Your task to perform on an android device: turn off translation in the chrome app Image 0: 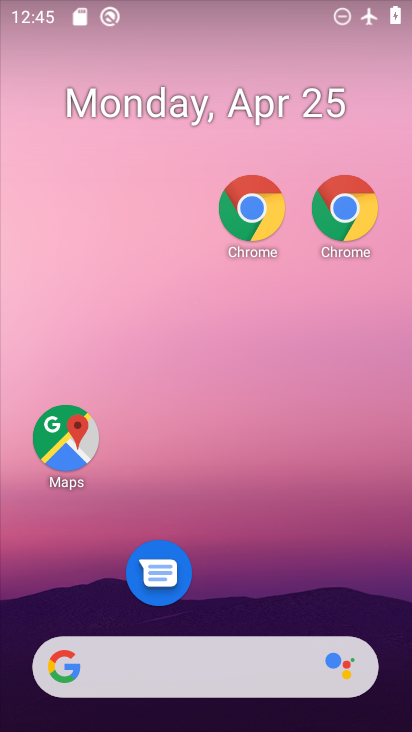
Step 0: click (199, 171)
Your task to perform on an android device: turn off translation in the chrome app Image 1: 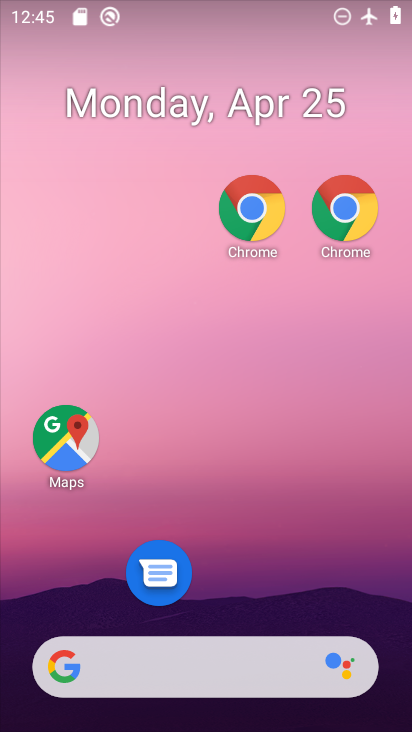
Step 1: drag from (272, 706) to (203, 218)
Your task to perform on an android device: turn off translation in the chrome app Image 2: 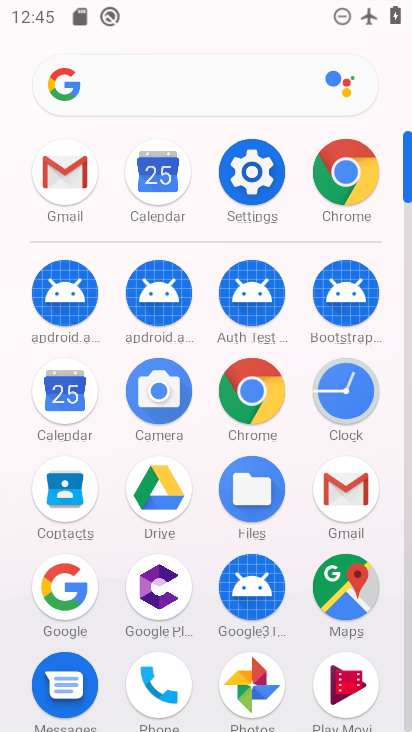
Step 2: click (339, 178)
Your task to perform on an android device: turn off translation in the chrome app Image 3: 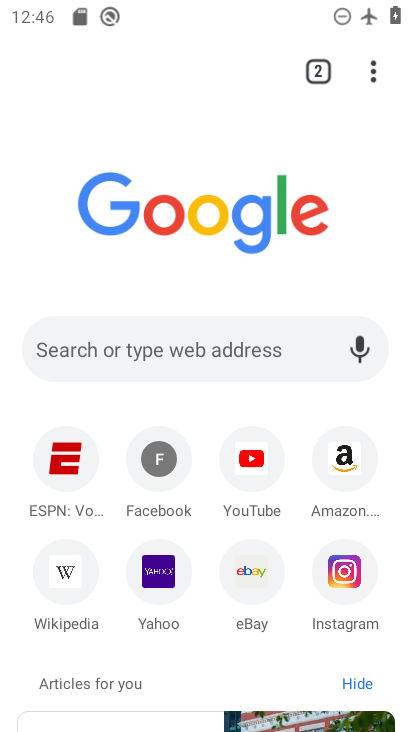
Step 3: drag from (371, 67) to (113, 592)
Your task to perform on an android device: turn off translation in the chrome app Image 4: 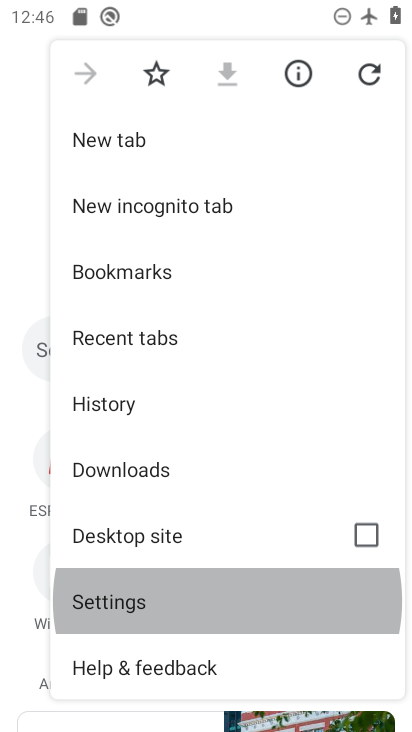
Step 4: click (103, 599)
Your task to perform on an android device: turn off translation in the chrome app Image 5: 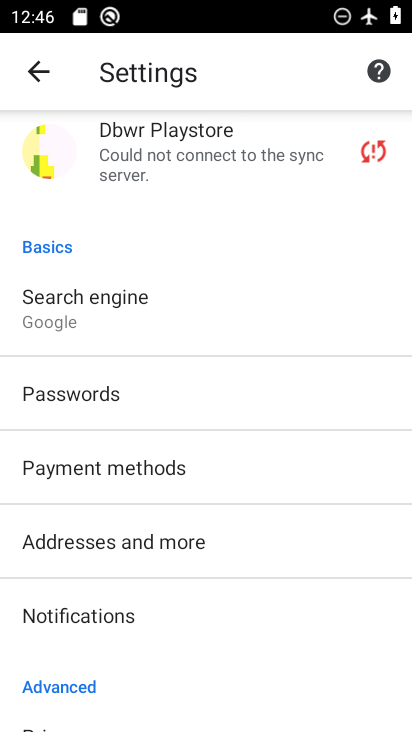
Step 5: drag from (202, 551) to (222, 160)
Your task to perform on an android device: turn off translation in the chrome app Image 6: 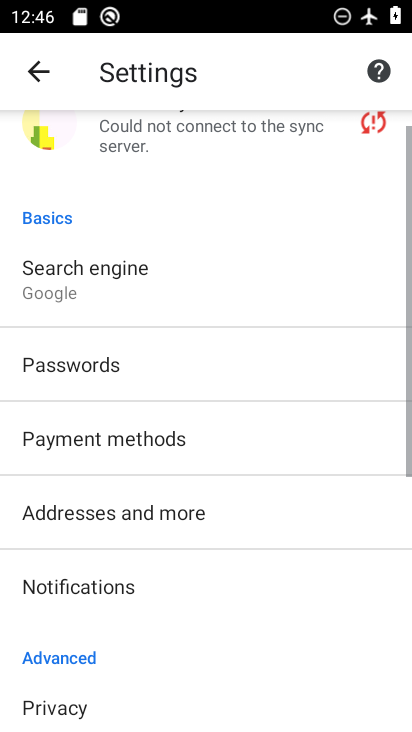
Step 6: drag from (217, 561) to (212, 157)
Your task to perform on an android device: turn off translation in the chrome app Image 7: 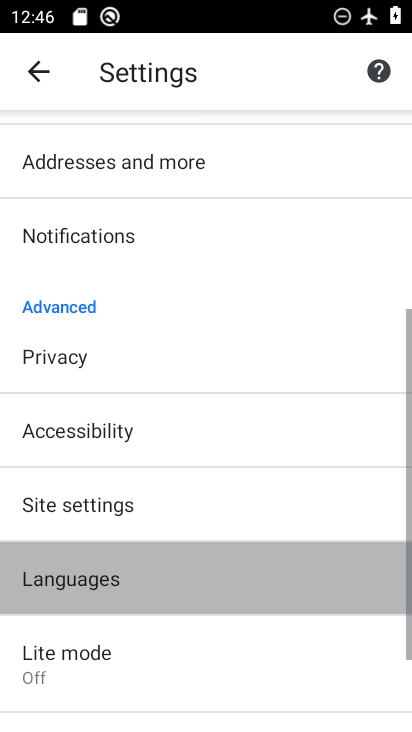
Step 7: drag from (202, 497) to (243, 114)
Your task to perform on an android device: turn off translation in the chrome app Image 8: 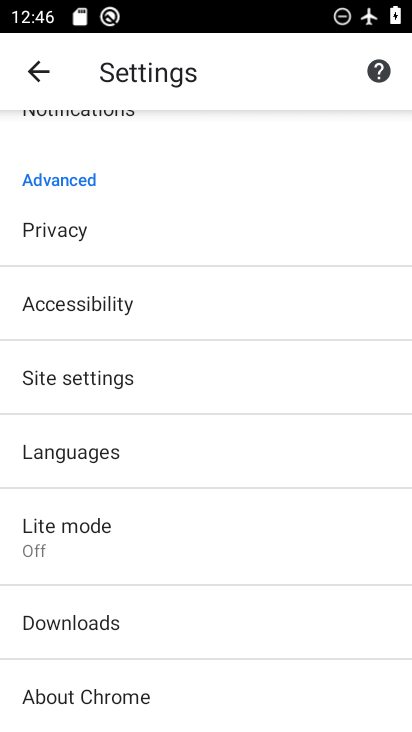
Step 8: click (62, 378)
Your task to perform on an android device: turn off translation in the chrome app Image 9: 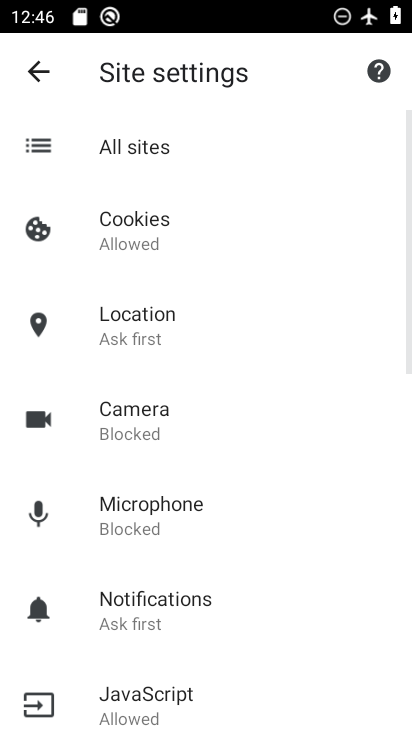
Step 9: click (34, 65)
Your task to perform on an android device: turn off translation in the chrome app Image 10: 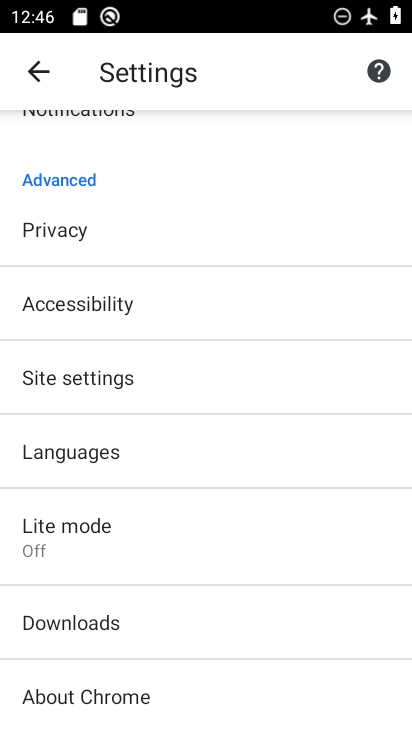
Step 10: click (68, 456)
Your task to perform on an android device: turn off translation in the chrome app Image 11: 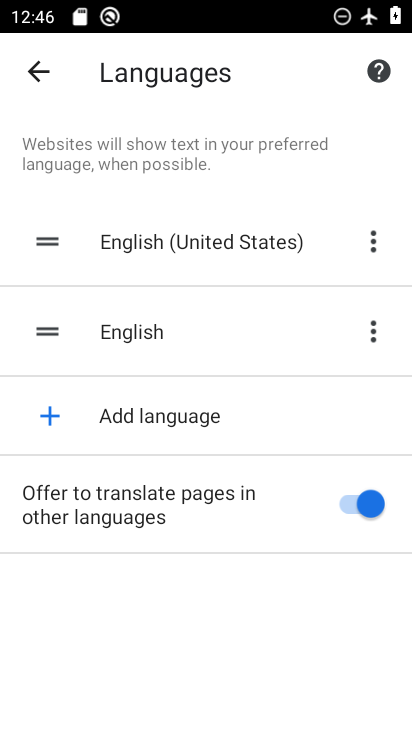
Step 11: click (369, 505)
Your task to perform on an android device: turn off translation in the chrome app Image 12: 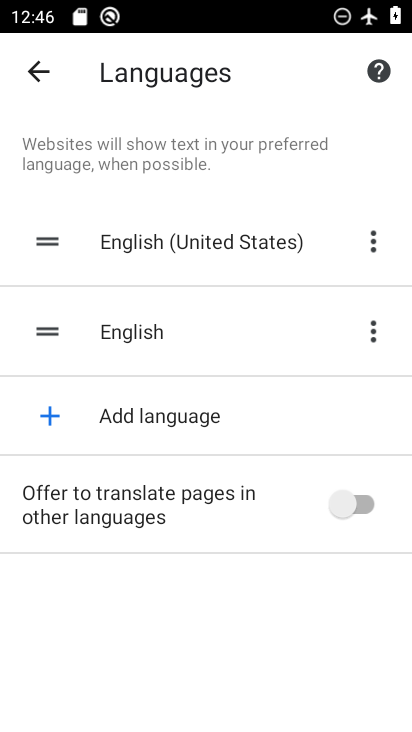
Step 12: task complete